Your task to perform on an android device: Open calendar and show me the fourth week of next month Image 0: 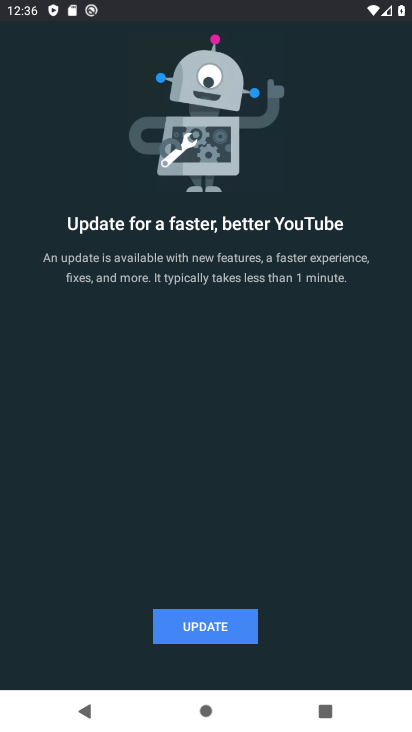
Step 0: press home button
Your task to perform on an android device: Open calendar and show me the fourth week of next month Image 1: 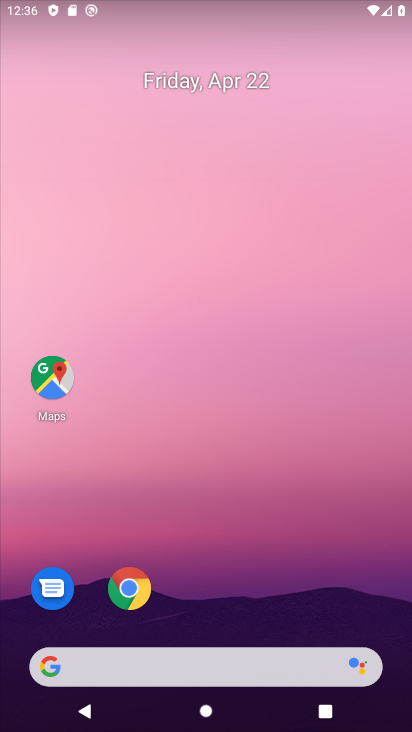
Step 1: drag from (69, 6) to (167, 16)
Your task to perform on an android device: Open calendar and show me the fourth week of next month Image 2: 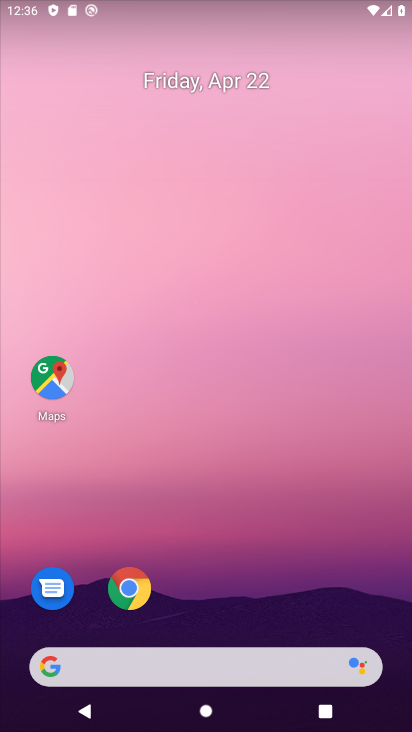
Step 2: drag from (231, 530) to (266, 56)
Your task to perform on an android device: Open calendar and show me the fourth week of next month Image 3: 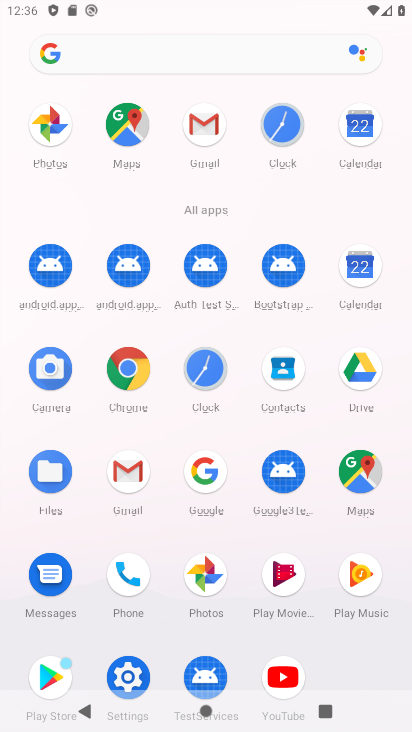
Step 3: click (360, 266)
Your task to perform on an android device: Open calendar and show me the fourth week of next month Image 4: 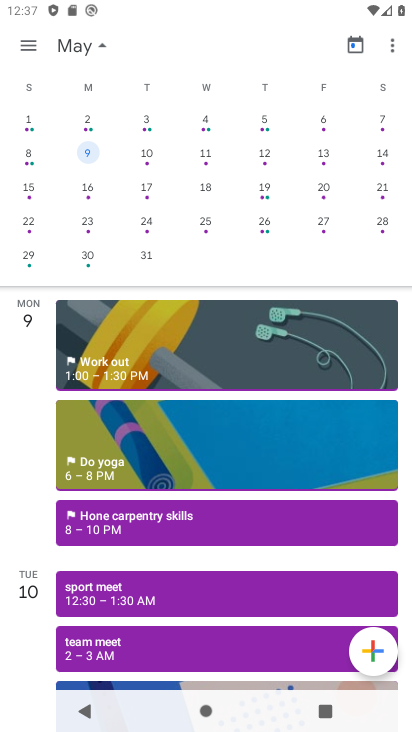
Step 4: click (91, 220)
Your task to perform on an android device: Open calendar and show me the fourth week of next month Image 5: 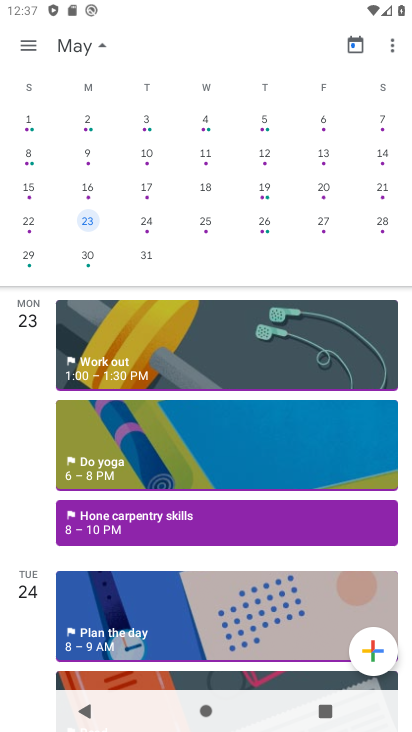
Step 5: task complete